Your task to perform on an android device: Open notification settings Image 0: 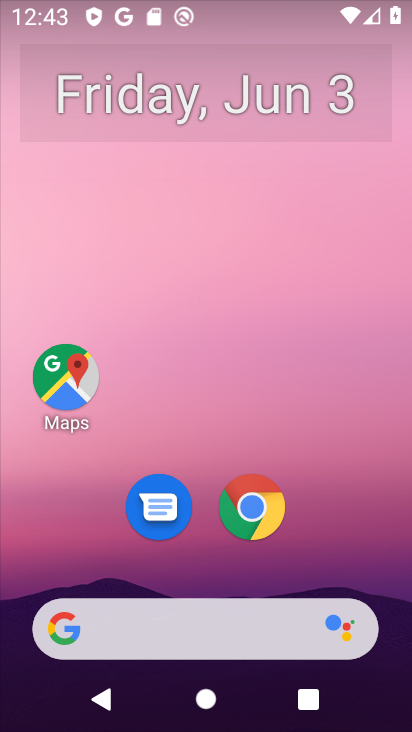
Step 0: drag from (311, 567) to (312, 219)
Your task to perform on an android device: Open notification settings Image 1: 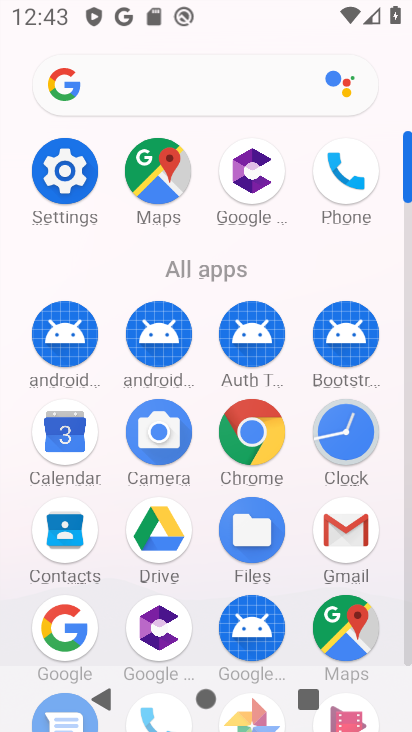
Step 1: click (68, 166)
Your task to perform on an android device: Open notification settings Image 2: 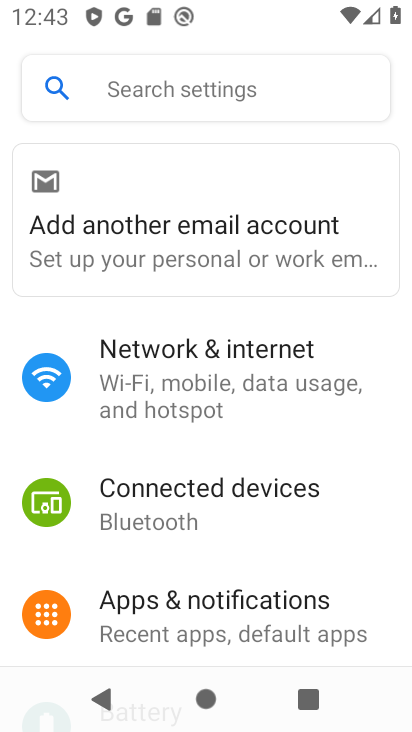
Step 2: click (293, 614)
Your task to perform on an android device: Open notification settings Image 3: 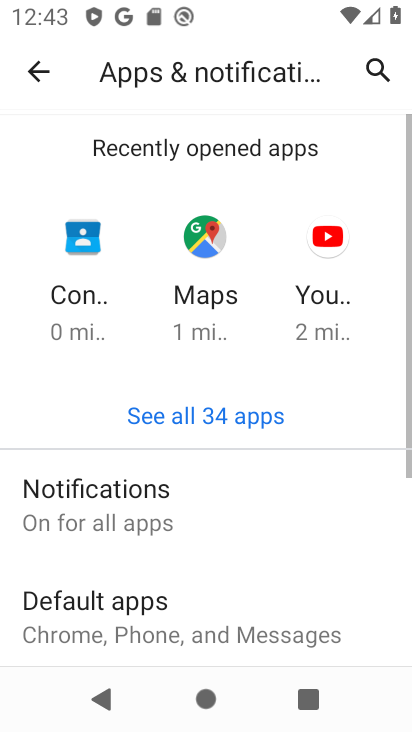
Step 3: drag from (282, 593) to (293, 428)
Your task to perform on an android device: Open notification settings Image 4: 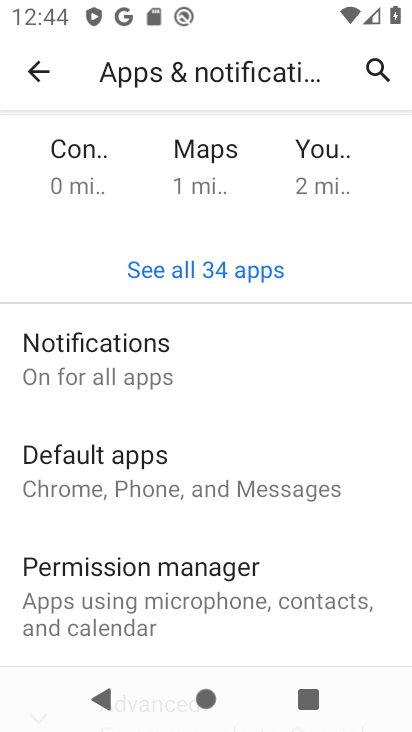
Step 4: click (194, 371)
Your task to perform on an android device: Open notification settings Image 5: 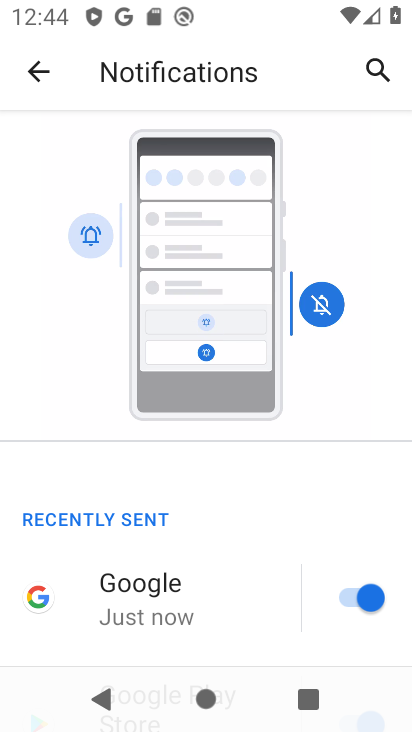
Step 5: task complete